Your task to perform on an android device: Is it going to rain tomorrow? Image 0: 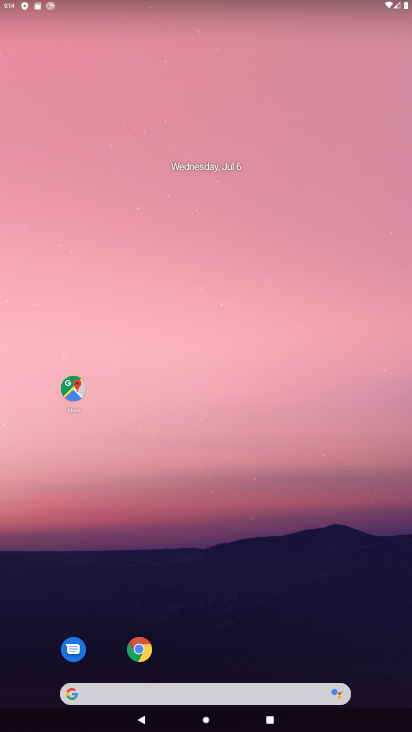
Step 0: drag from (252, 629) to (271, 156)
Your task to perform on an android device: Is it going to rain tomorrow? Image 1: 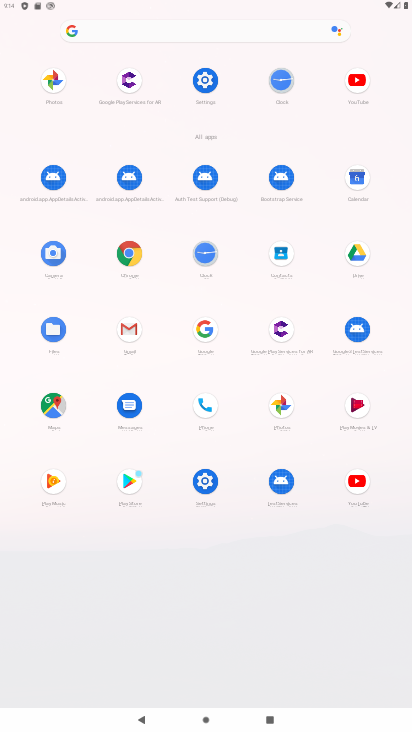
Step 1: click (182, 21)
Your task to perform on an android device: Is it going to rain tomorrow? Image 2: 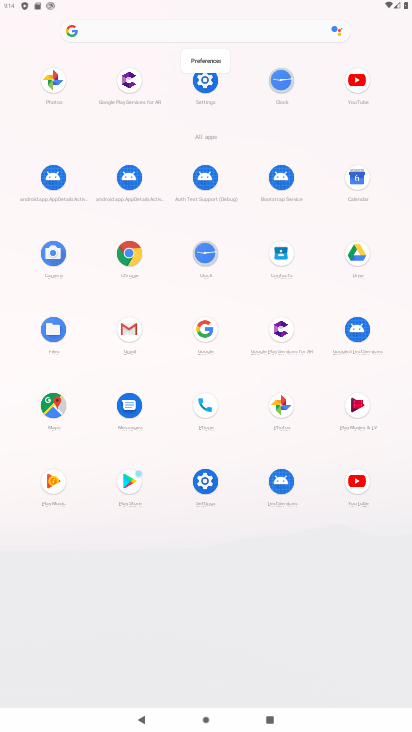
Step 2: click (175, 38)
Your task to perform on an android device: Is it going to rain tomorrow? Image 3: 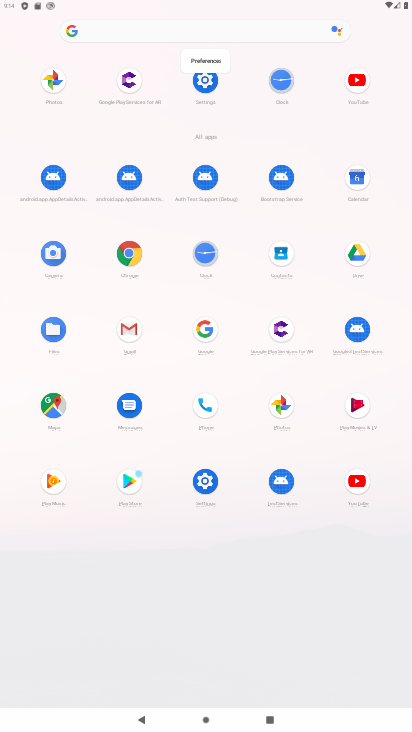
Step 3: click (175, 32)
Your task to perform on an android device: Is it going to rain tomorrow? Image 4: 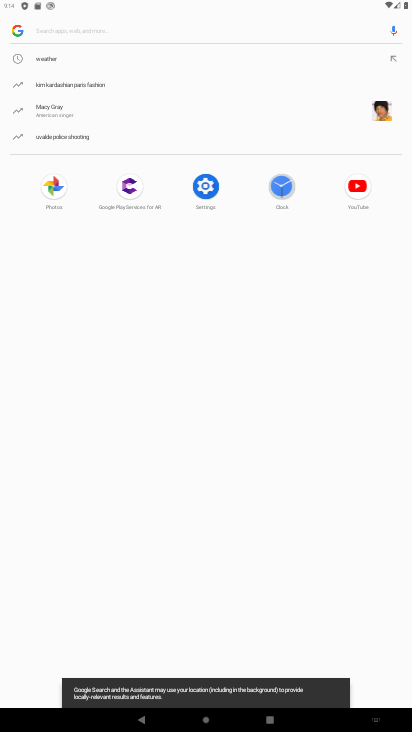
Step 4: click (60, 63)
Your task to perform on an android device: Is it going to rain tomorrow? Image 5: 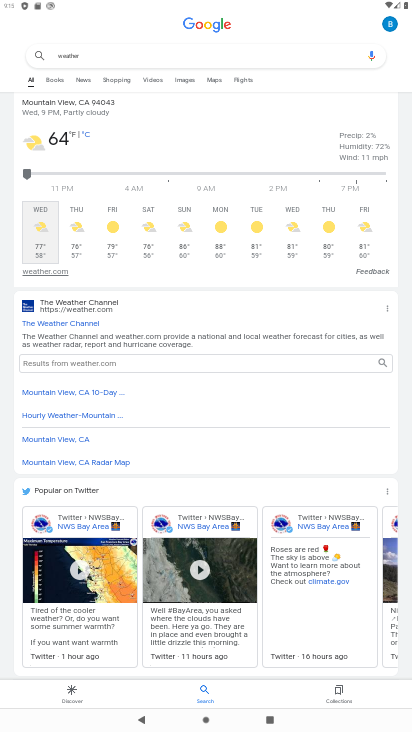
Step 5: click (60, 63)
Your task to perform on an android device: Is it going to rain tomorrow? Image 6: 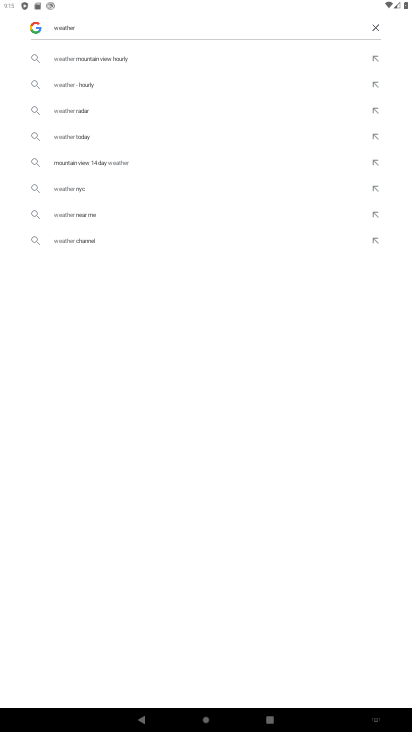
Step 6: click (130, 58)
Your task to perform on an android device: Is it going to rain tomorrow? Image 7: 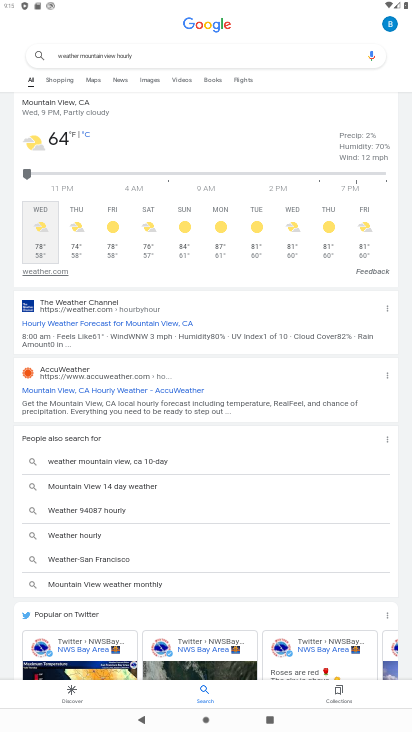
Step 7: task complete